Your task to perform on an android device: Open sound settings Image 0: 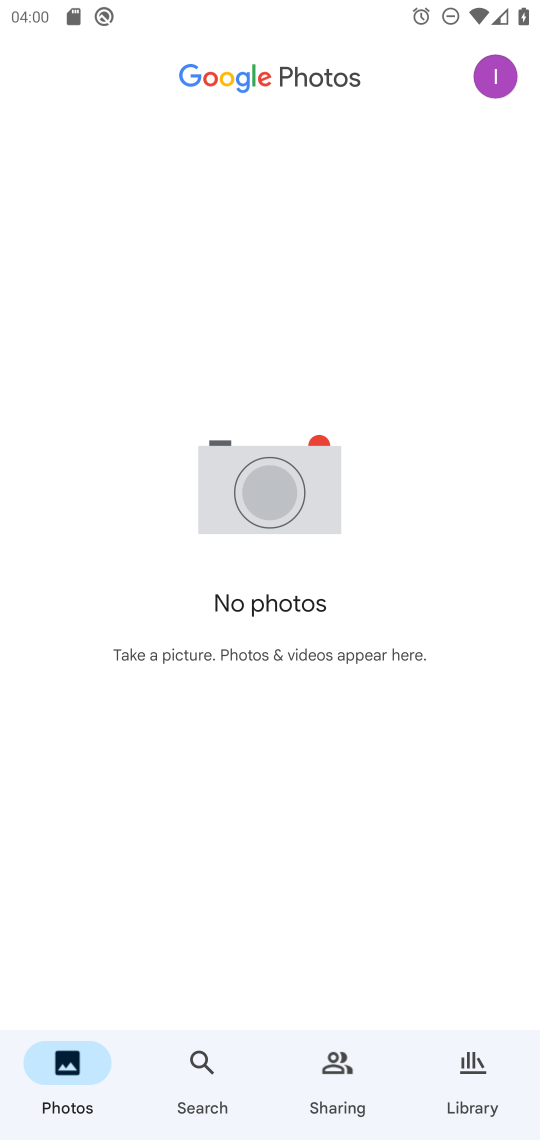
Step 0: press home button
Your task to perform on an android device: Open sound settings Image 1: 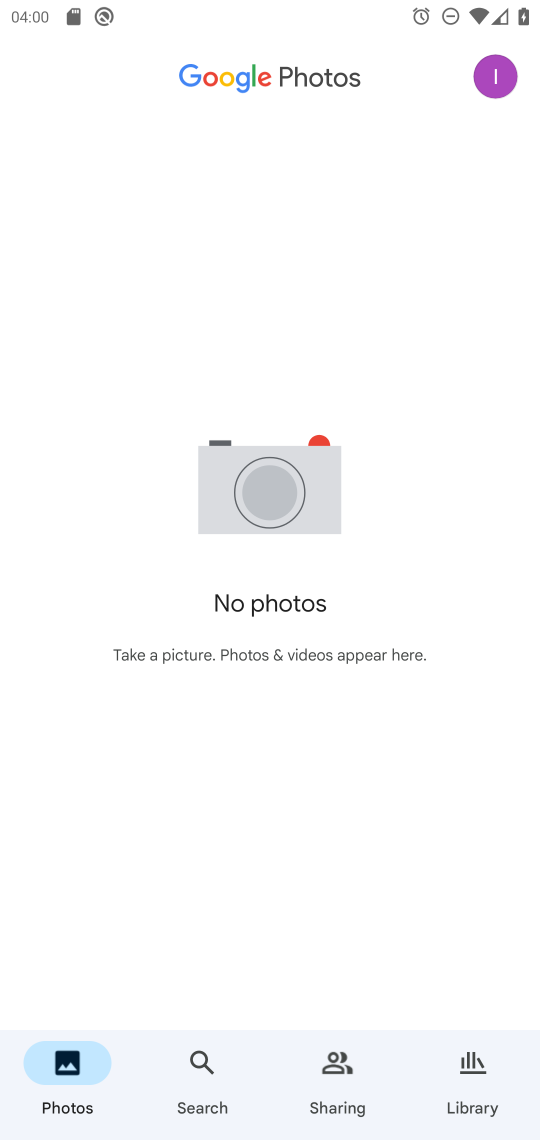
Step 1: press home button
Your task to perform on an android device: Open sound settings Image 2: 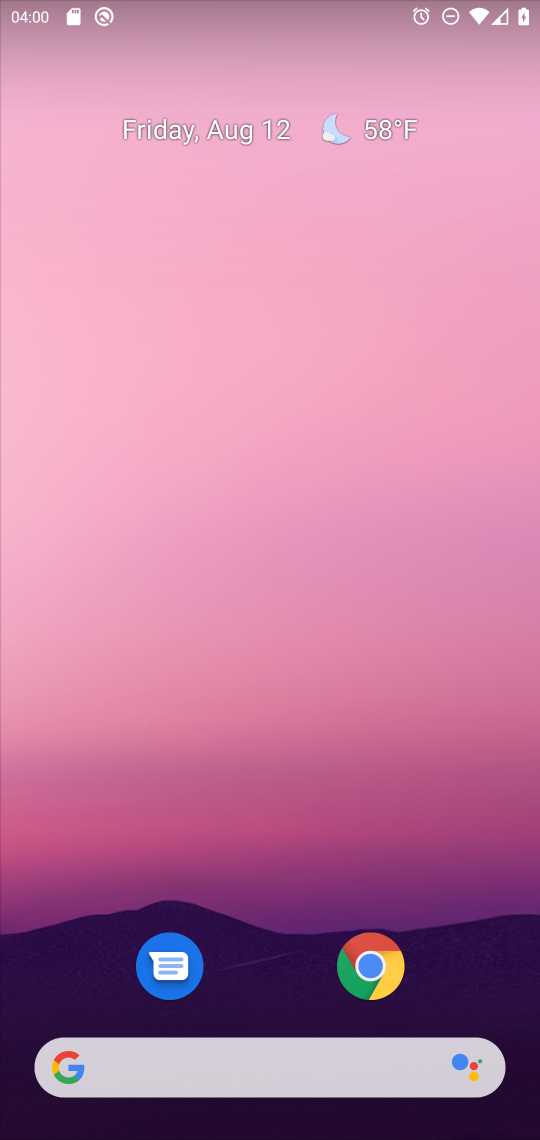
Step 2: drag from (258, 809) to (364, 38)
Your task to perform on an android device: Open sound settings Image 3: 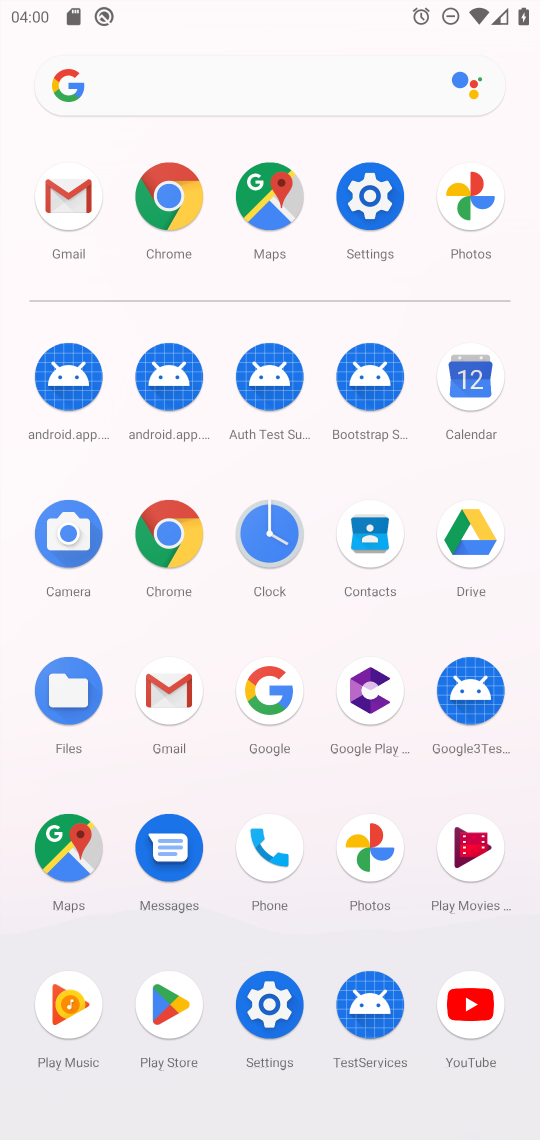
Step 3: click (279, 1007)
Your task to perform on an android device: Open sound settings Image 4: 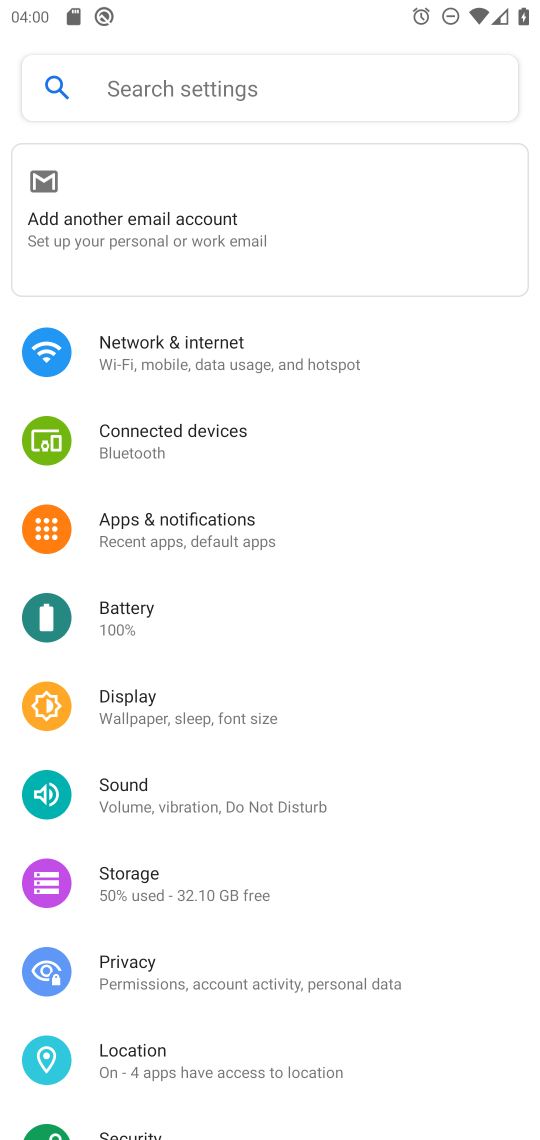
Step 4: click (175, 790)
Your task to perform on an android device: Open sound settings Image 5: 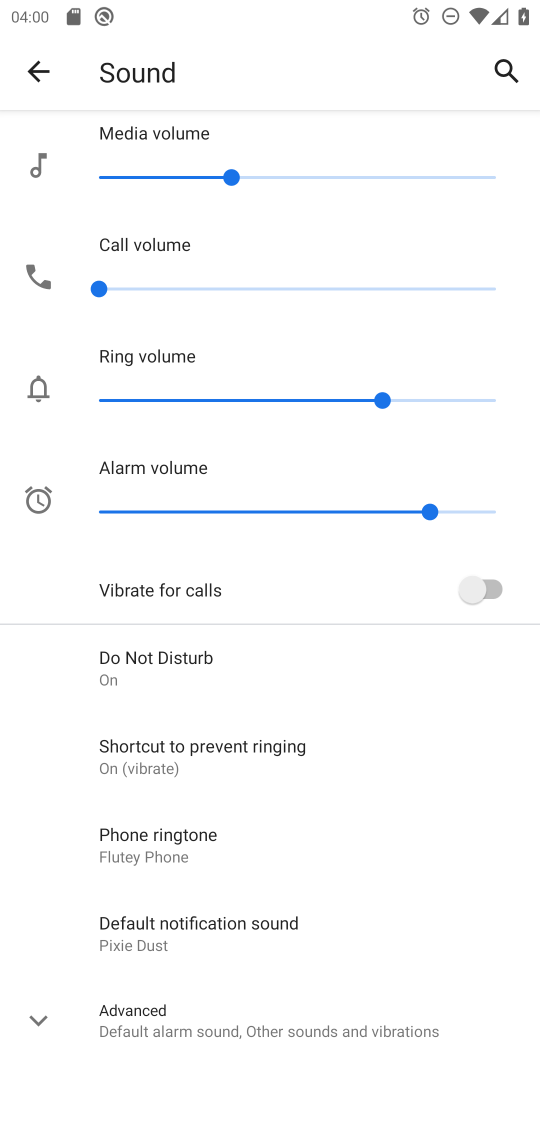
Step 5: task complete